Your task to perform on an android device: turn on the 24-hour format for clock Image 0: 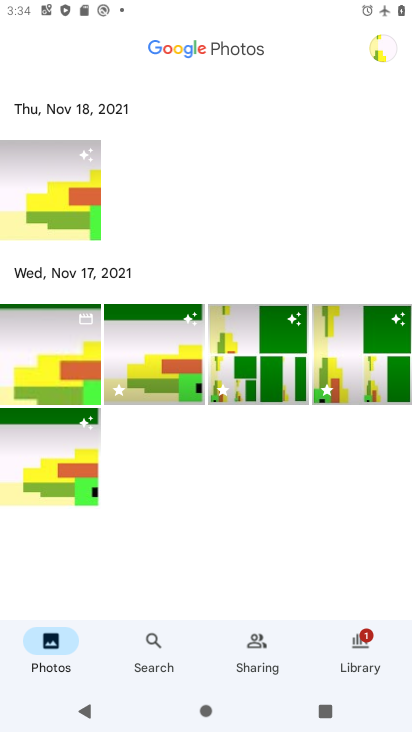
Step 0: press home button
Your task to perform on an android device: turn on the 24-hour format for clock Image 1: 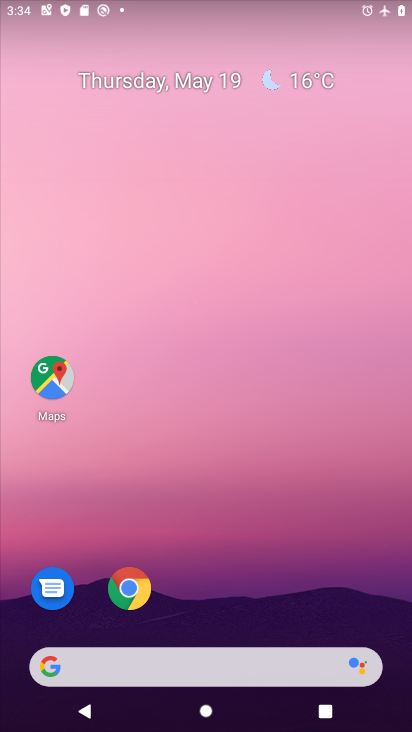
Step 1: drag from (294, 563) to (262, 143)
Your task to perform on an android device: turn on the 24-hour format for clock Image 2: 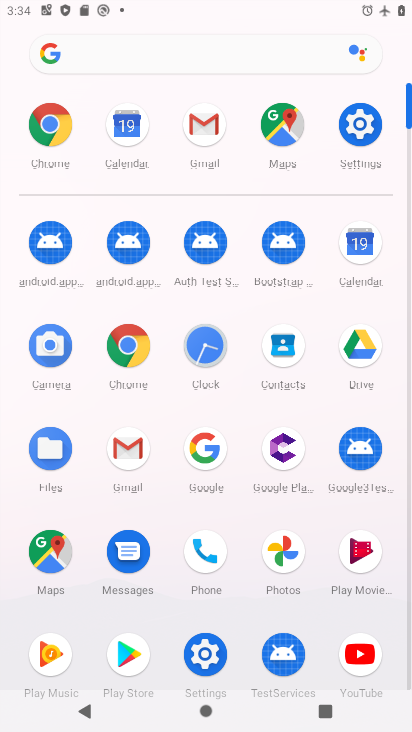
Step 2: click (205, 348)
Your task to perform on an android device: turn on the 24-hour format for clock Image 3: 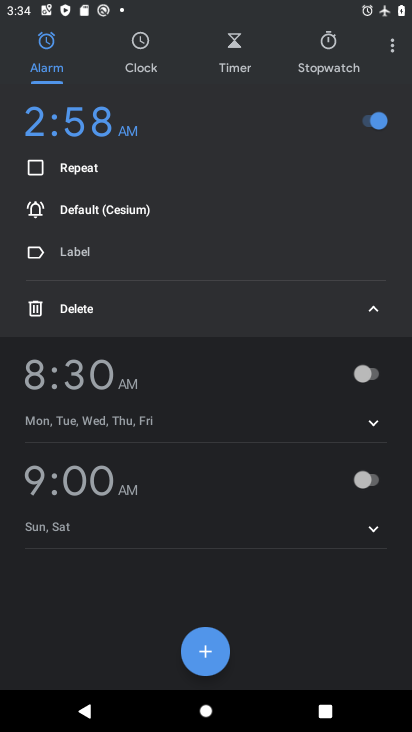
Step 3: click (396, 50)
Your task to perform on an android device: turn on the 24-hour format for clock Image 4: 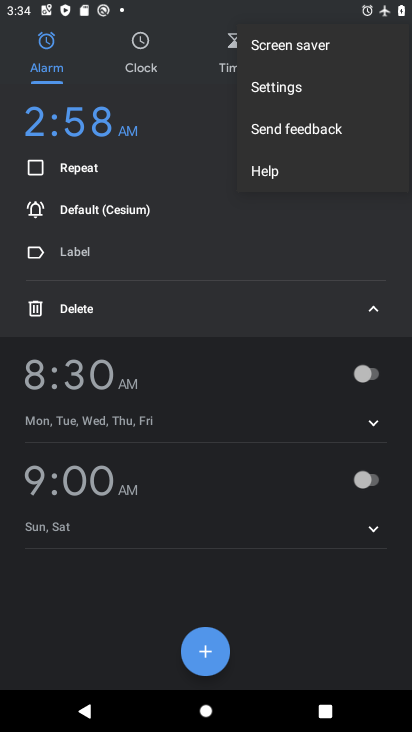
Step 4: click (290, 89)
Your task to perform on an android device: turn on the 24-hour format for clock Image 5: 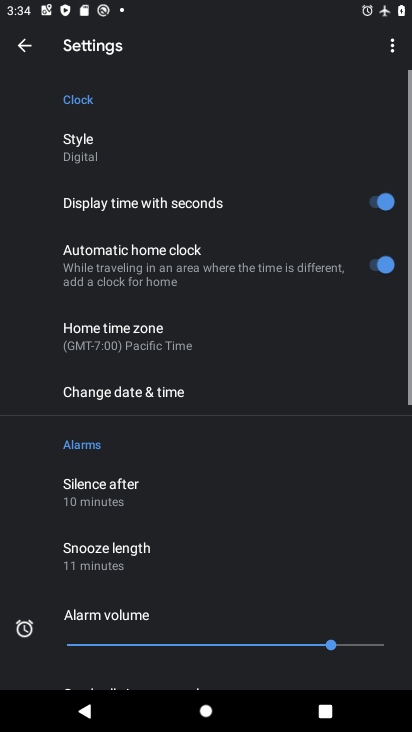
Step 5: drag from (261, 427) to (284, 204)
Your task to perform on an android device: turn on the 24-hour format for clock Image 6: 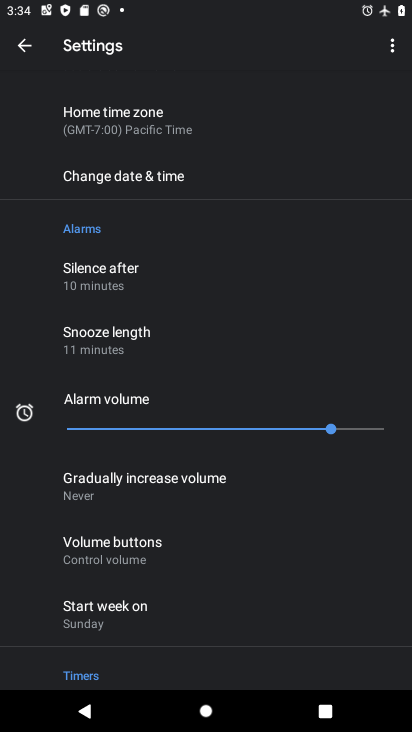
Step 6: click (186, 174)
Your task to perform on an android device: turn on the 24-hour format for clock Image 7: 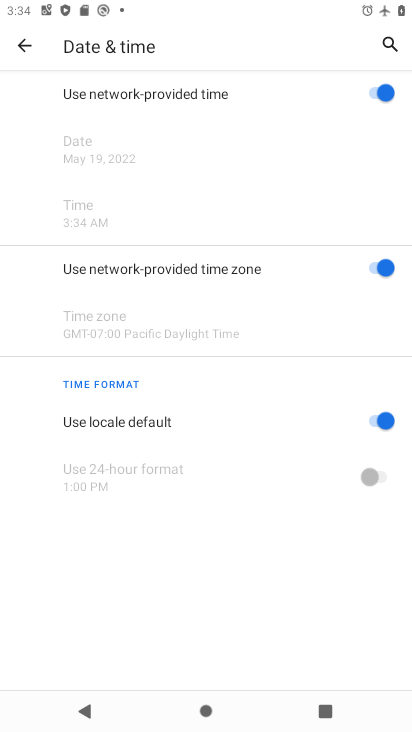
Step 7: click (353, 421)
Your task to perform on an android device: turn on the 24-hour format for clock Image 8: 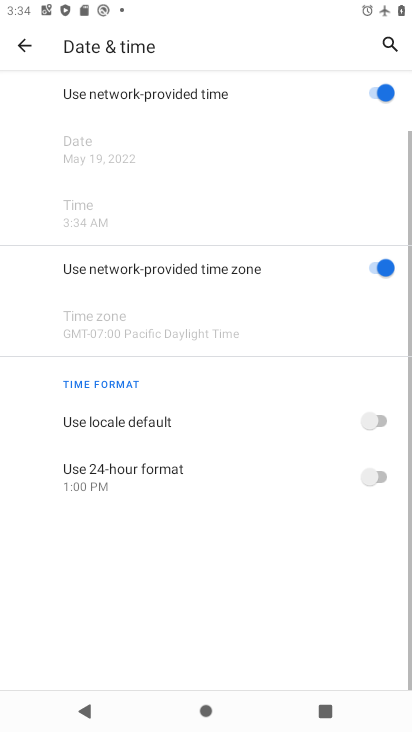
Step 8: click (379, 482)
Your task to perform on an android device: turn on the 24-hour format for clock Image 9: 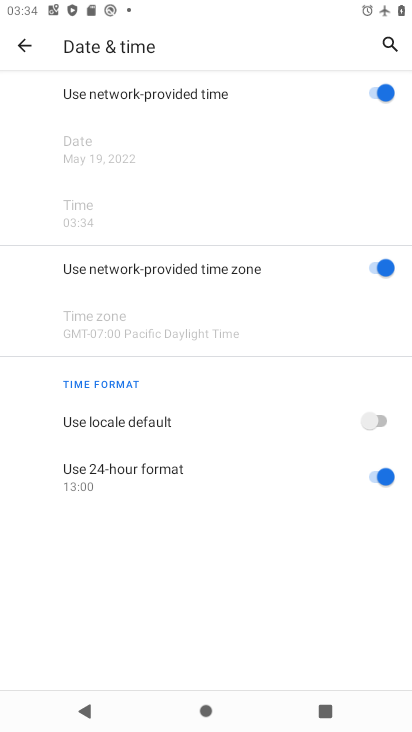
Step 9: task complete